Your task to perform on an android device: turn on showing notifications on the lock screen Image 0: 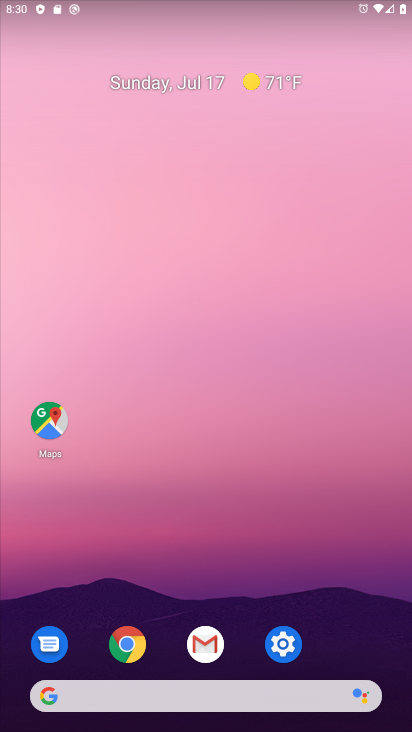
Step 0: drag from (254, 688) to (201, 67)
Your task to perform on an android device: turn on showing notifications on the lock screen Image 1: 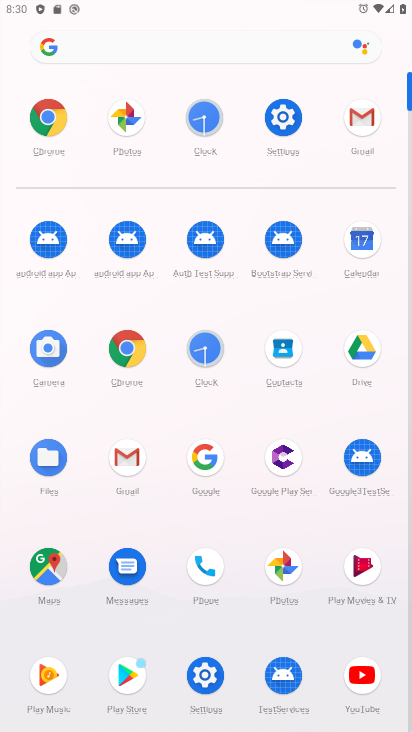
Step 1: click (218, 679)
Your task to perform on an android device: turn on showing notifications on the lock screen Image 2: 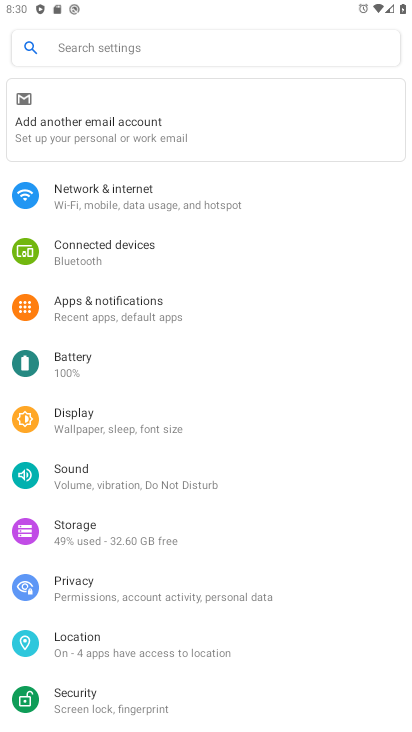
Step 2: click (77, 45)
Your task to perform on an android device: turn on showing notifications on the lock screen Image 3: 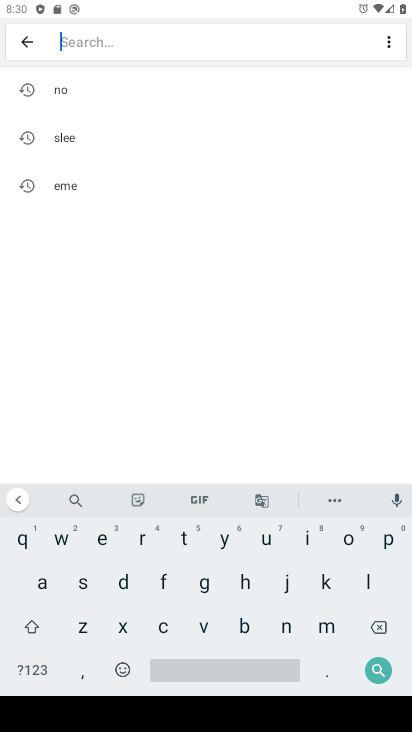
Step 3: click (284, 629)
Your task to perform on an android device: turn on showing notifications on the lock screen Image 4: 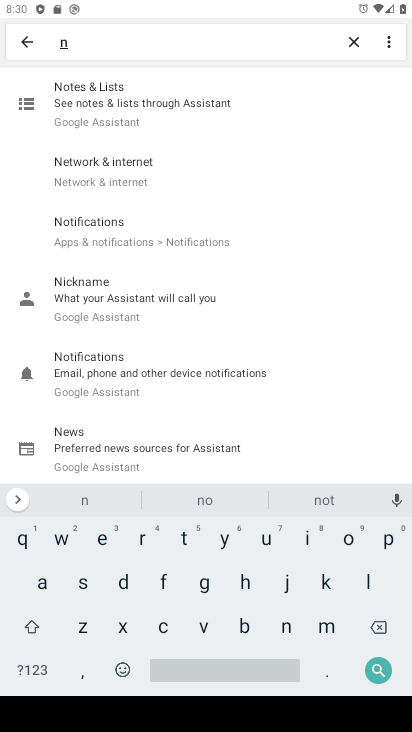
Step 4: click (142, 232)
Your task to perform on an android device: turn on showing notifications on the lock screen Image 5: 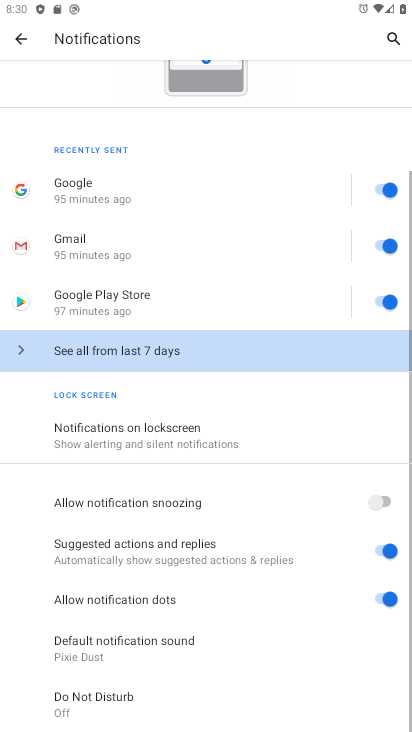
Step 5: click (116, 418)
Your task to perform on an android device: turn on showing notifications on the lock screen Image 6: 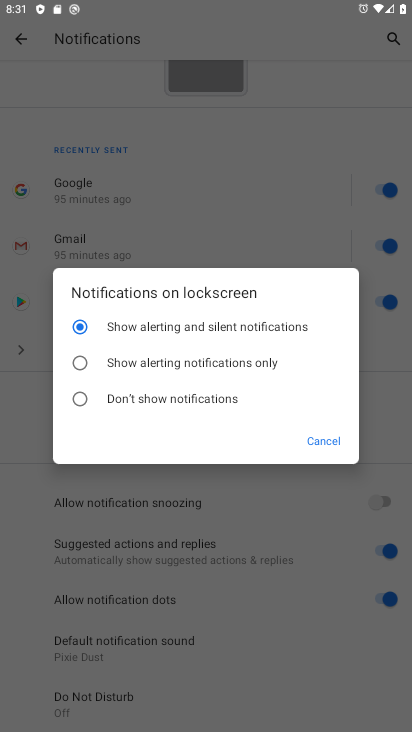
Step 6: task complete